Your task to perform on an android device: Go to eBay Image 0: 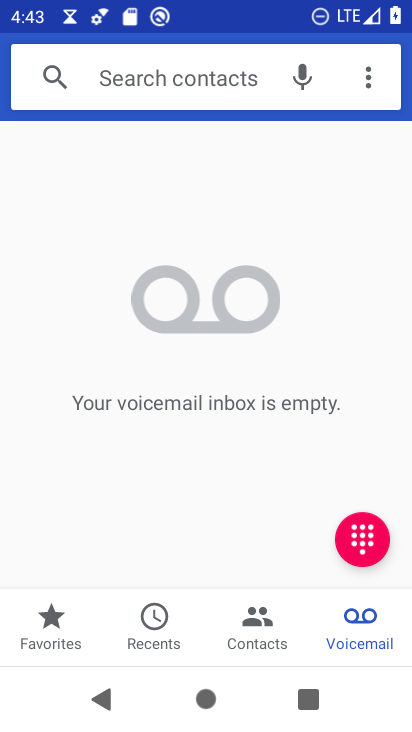
Step 0: press home button
Your task to perform on an android device: Go to eBay Image 1: 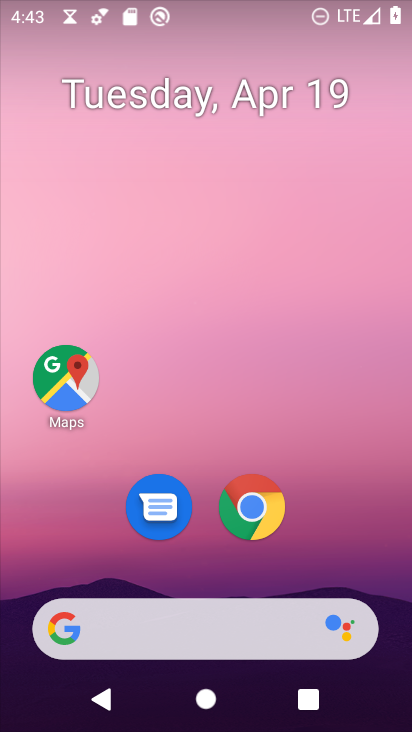
Step 1: click (258, 512)
Your task to perform on an android device: Go to eBay Image 2: 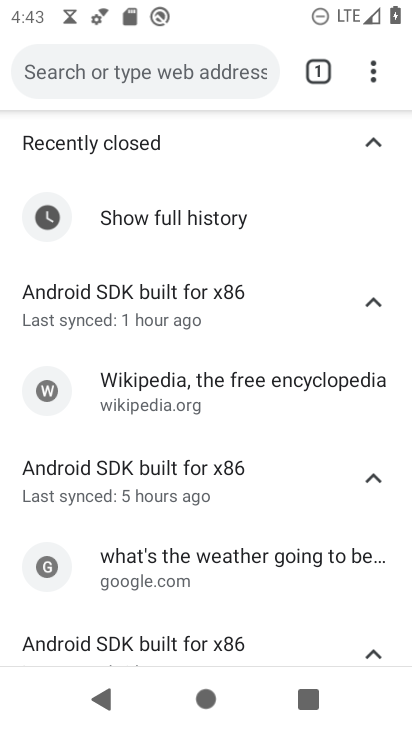
Step 2: click (179, 87)
Your task to perform on an android device: Go to eBay Image 3: 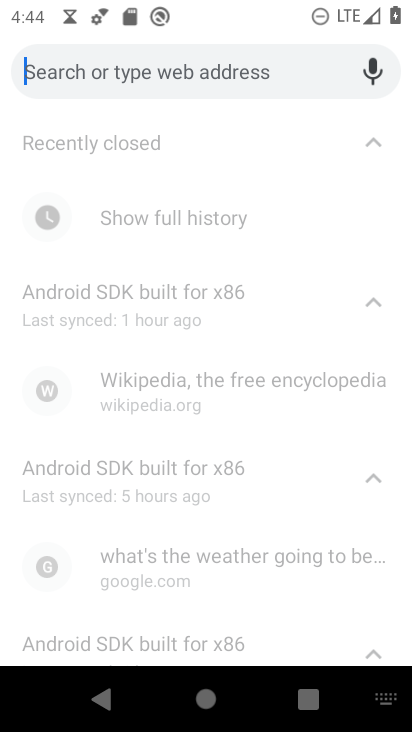
Step 3: type "ebay"
Your task to perform on an android device: Go to eBay Image 4: 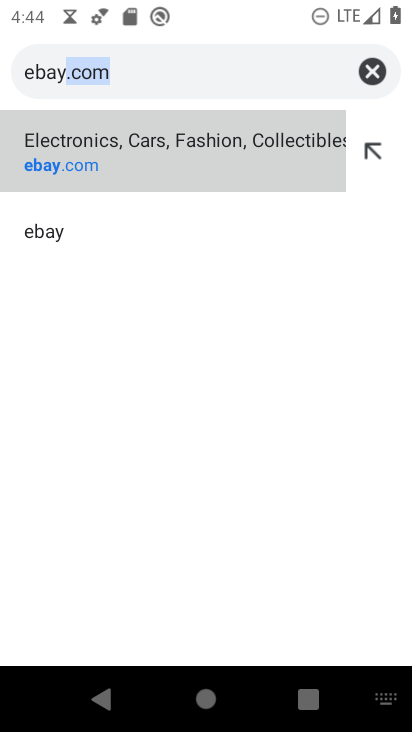
Step 4: click (123, 127)
Your task to perform on an android device: Go to eBay Image 5: 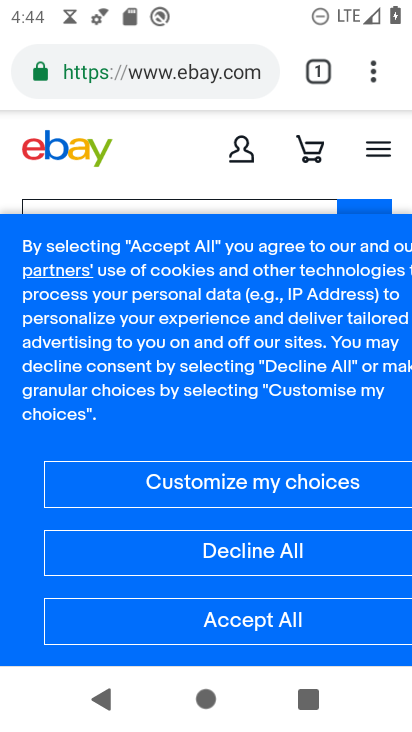
Step 5: task complete